Your task to perform on an android device: star an email in the gmail app Image 0: 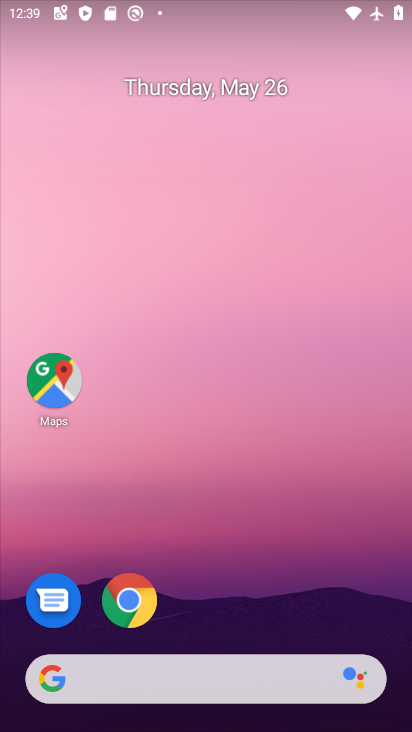
Step 0: drag from (293, 571) to (274, 147)
Your task to perform on an android device: star an email in the gmail app Image 1: 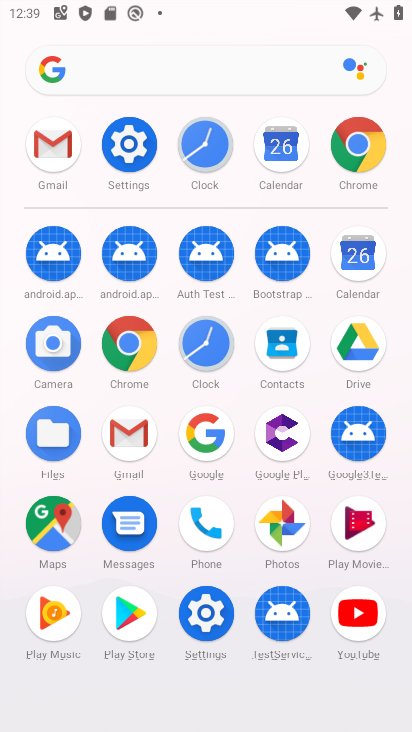
Step 1: click (54, 134)
Your task to perform on an android device: star an email in the gmail app Image 2: 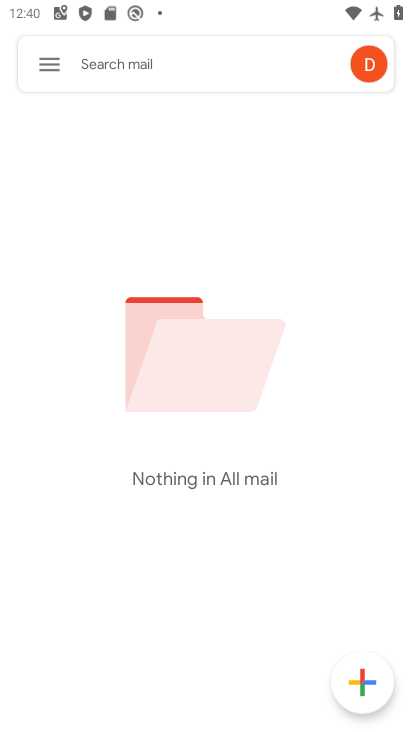
Step 2: task complete